Your task to perform on an android device: turn off notifications in google photos Image 0: 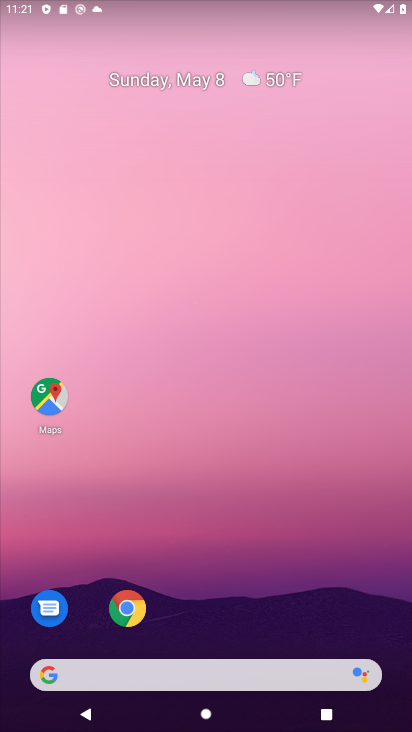
Step 0: drag from (226, 657) to (221, 219)
Your task to perform on an android device: turn off notifications in google photos Image 1: 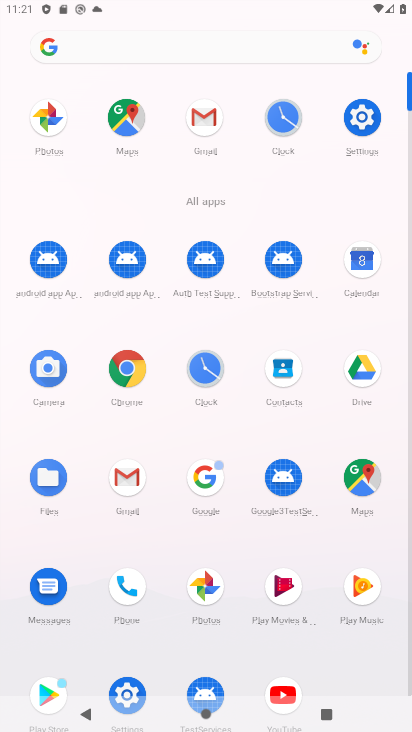
Step 1: click (219, 601)
Your task to perform on an android device: turn off notifications in google photos Image 2: 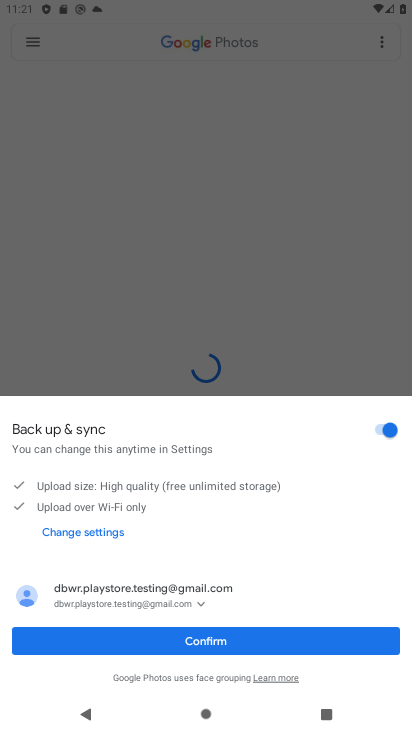
Step 2: click (234, 636)
Your task to perform on an android device: turn off notifications in google photos Image 3: 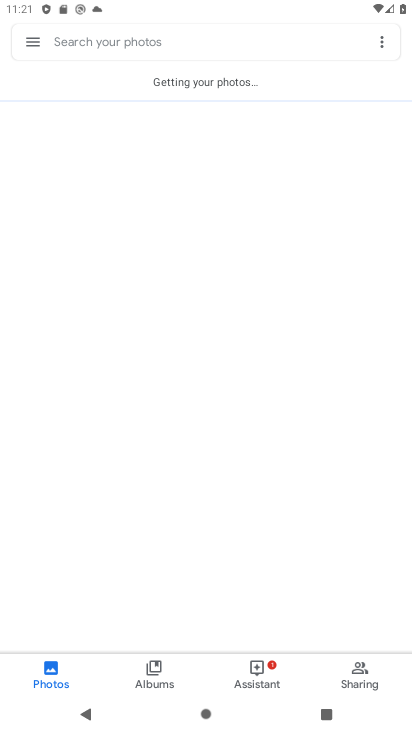
Step 3: click (43, 37)
Your task to perform on an android device: turn off notifications in google photos Image 4: 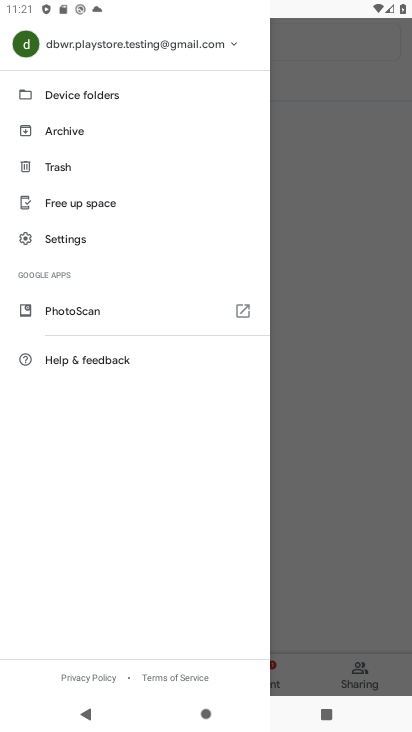
Step 4: click (158, 248)
Your task to perform on an android device: turn off notifications in google photos Image 5: 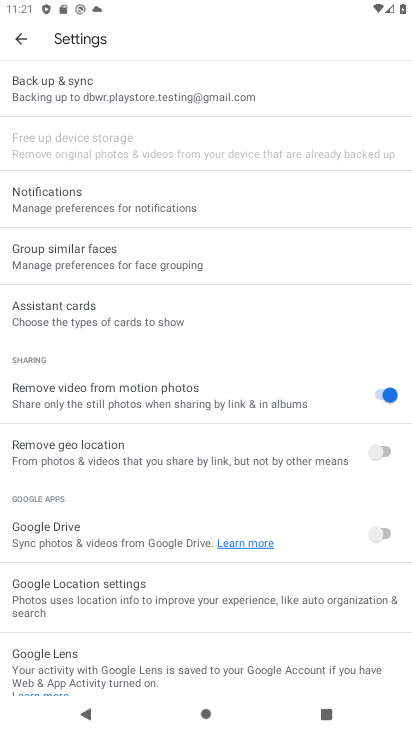
Step 5: click (260, 198)
Your task to perform on an android device: turn off notifications in google photos Image 6: 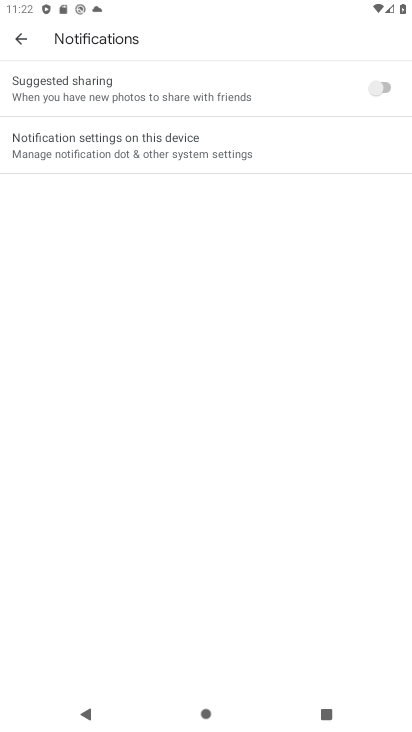
Step 6: click (288, 143)
Your task to perform on an android device: turn off notifications in google photos Image 7: 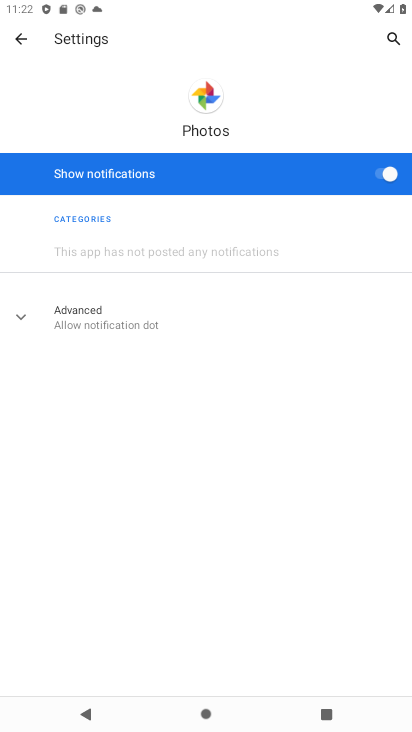
Step 7: click (386, 168)
Your task to perform on an android device: turn off notifications in google photos Image 8: 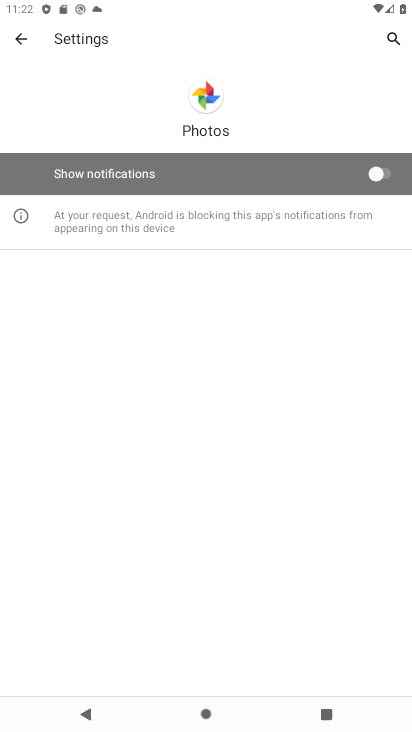
Step 8: task complete